Your task to perform on an android device: star an email in the gmail app Image 0: 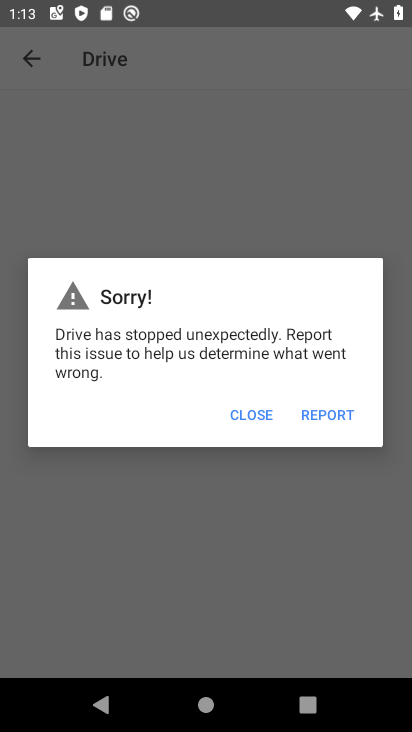
Step 0: press home button
Your task to perform on an android device: star an email in the gmail app Image 1: 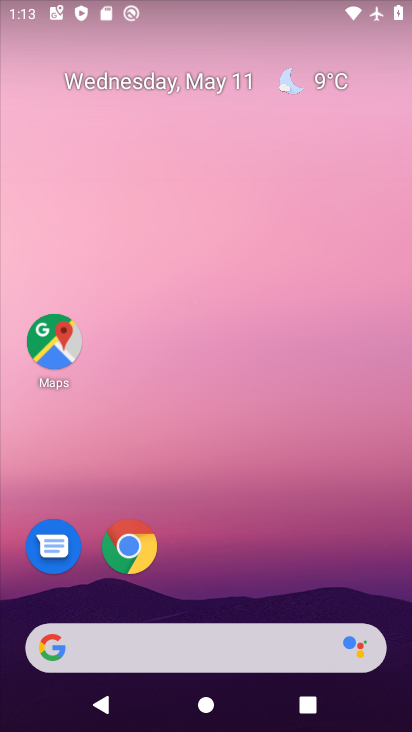
Step 1: drag from (283, 585) to (267, 22)
Your task to perform on an android device: star an email in the gmail app Image 2: 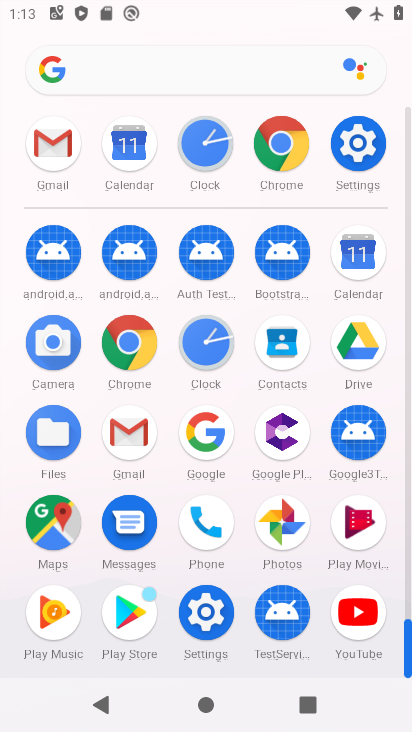
Step 2: click (131, 451)
Your task to perform on an android device: star an email in the gmail app Image 3: 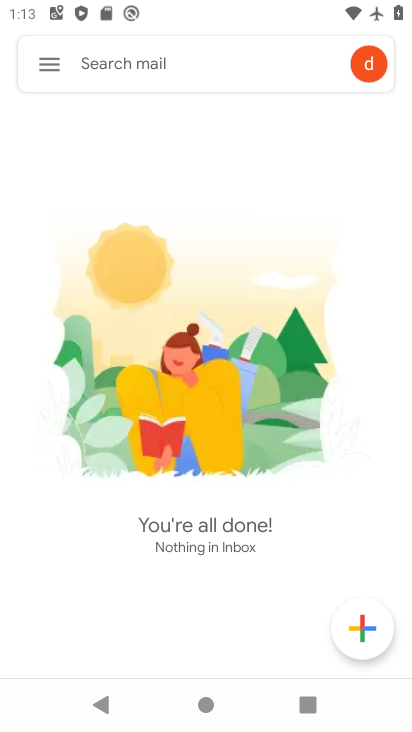
Step 3: click (42, 66)
Your task to perform on an android device: star an email in the gmail app Image 4: 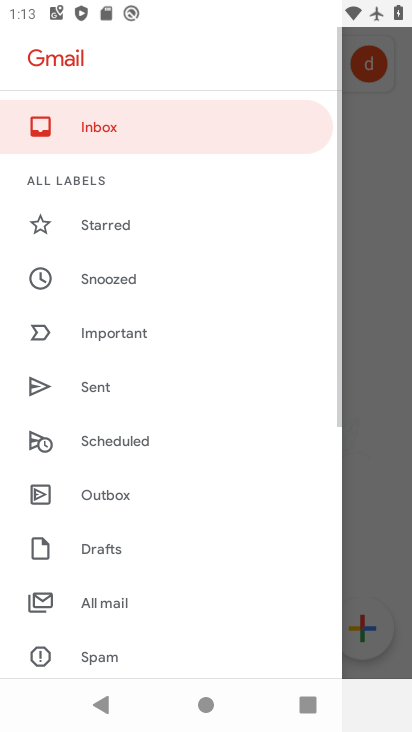
Step 4: click (111, 235)
Your task to perform on an android device: star an email in the gmail app Image 5: 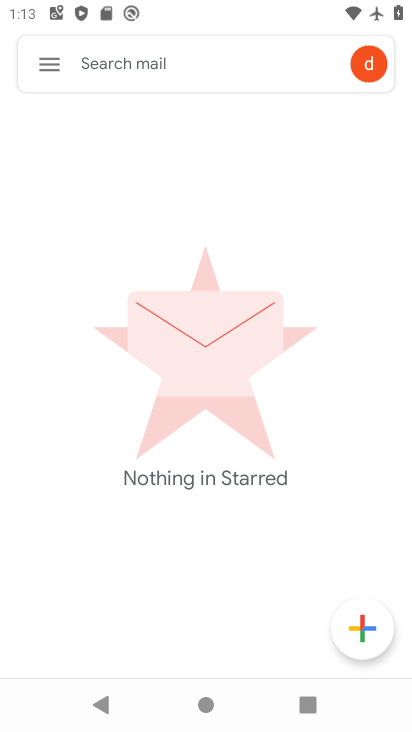
Step 5: task complete